Your task to perform on an android device: turn on bluetooth scan Image 0: 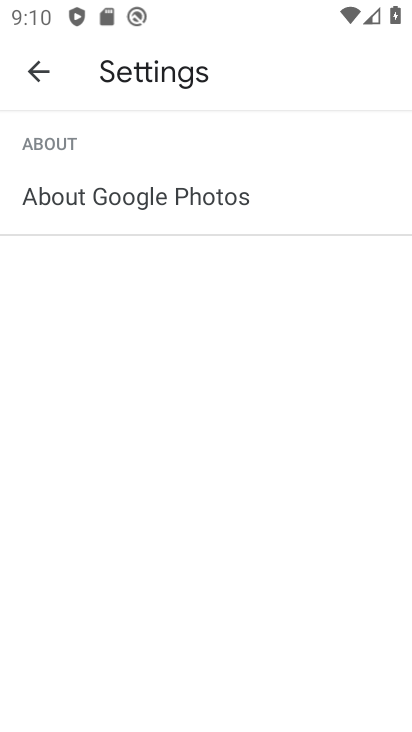
Step 0: press home button
Your task to perform on an android device: turn on bluetooth scan Image 1: 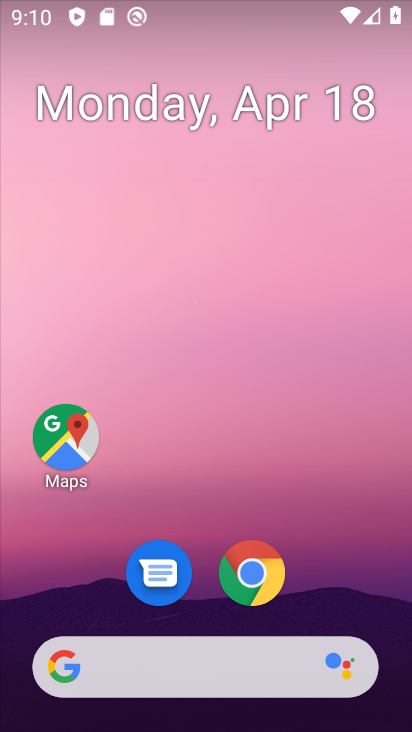
Step 1: drag from (374, 585) to (317, 150)
Your task to perform on an android device: turn on bluetooth scan Image 2: 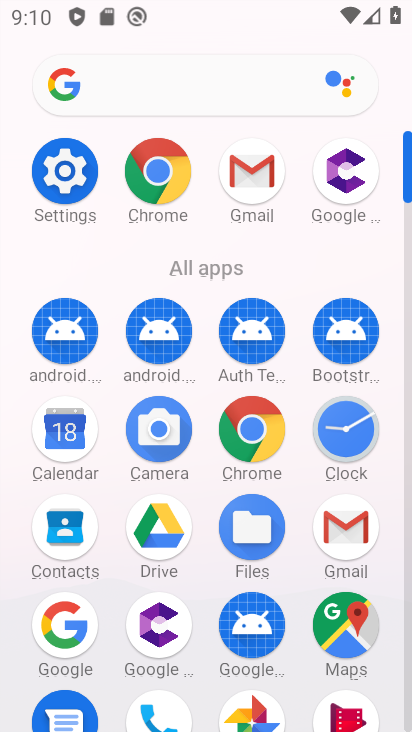
Step 2: click (406, 663)
Your task to perform on an android device: turn on bluetooth scan Image 3: 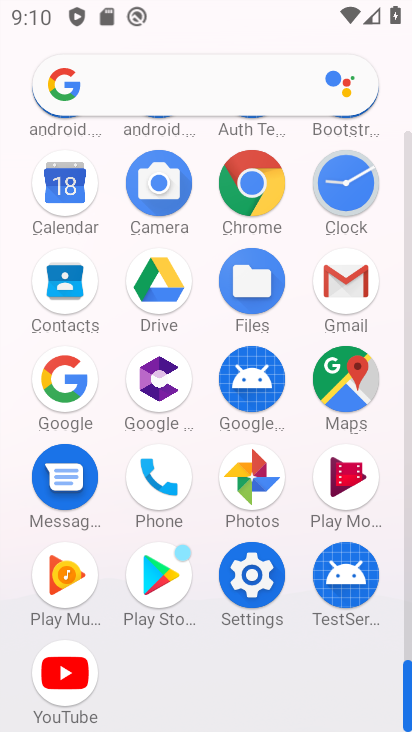
Step 3: click (251, 571)
Your task to perform on an android device: turn on bluetooth scan Image 4: 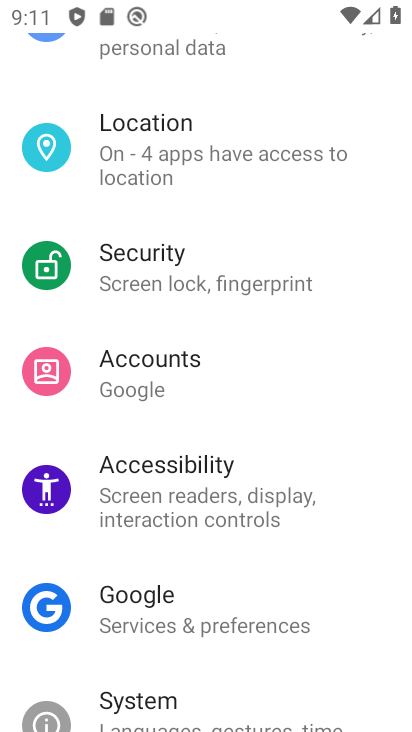
Step 4: click (141, 132)
Your task to perform on an android device: turn on bluetooth scan Image 5: 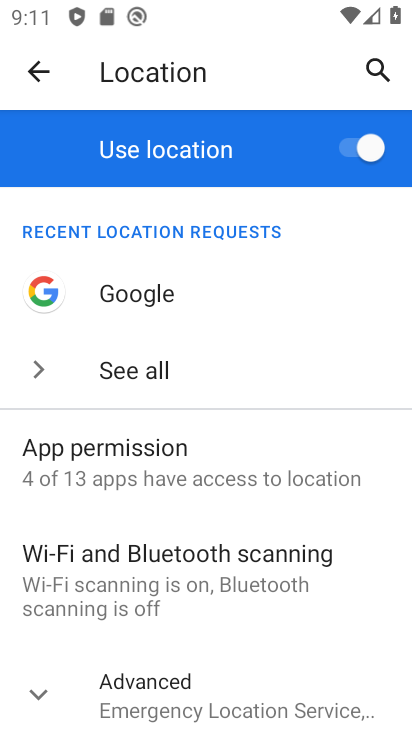
Step 5: click (153, 582)
Your task to perform on an android device: turn on bluetooth scan Image 6: 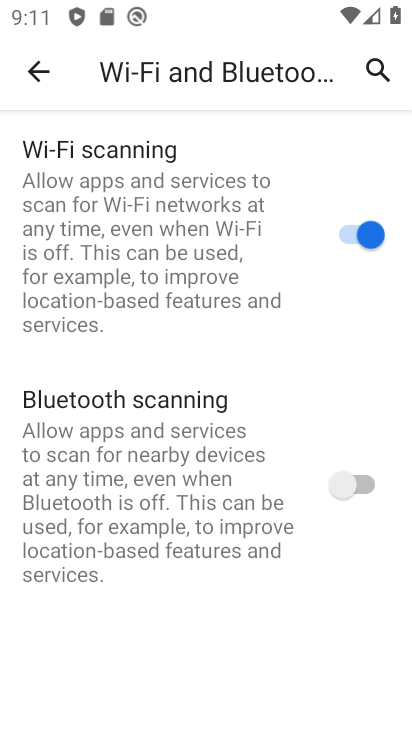
Step 6: click (370, 481)
Your task to perform on an android device: turn on bluetooth scan Image 7: 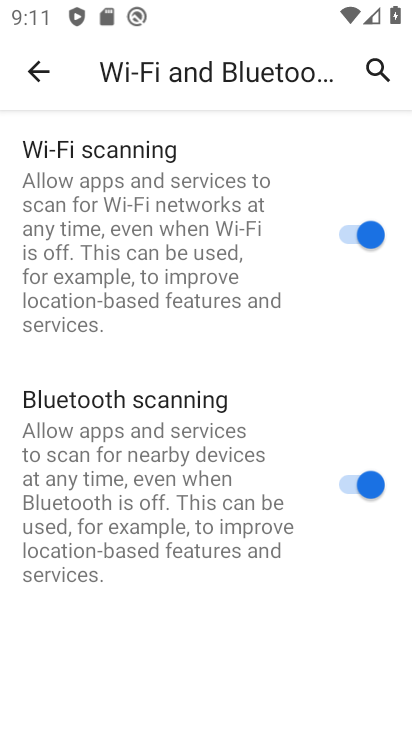
Step 7: task complete